Your task to perform on an android device: Is it going to rain this weekend? Image 0: 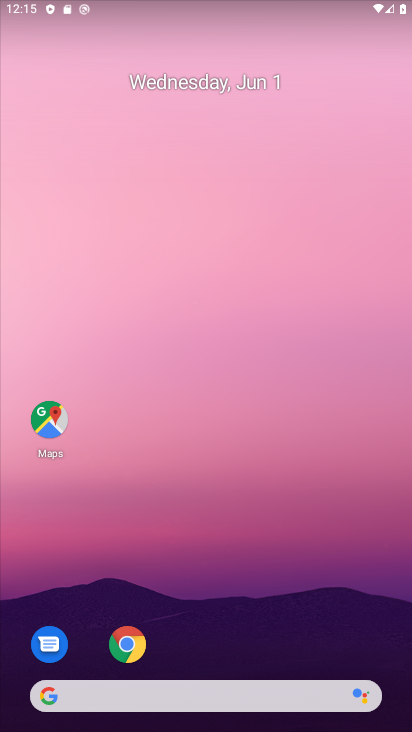
Step 0: click (141, 645)
Your task to perform on an android device: Is it going to rain this weekend? Image 1: 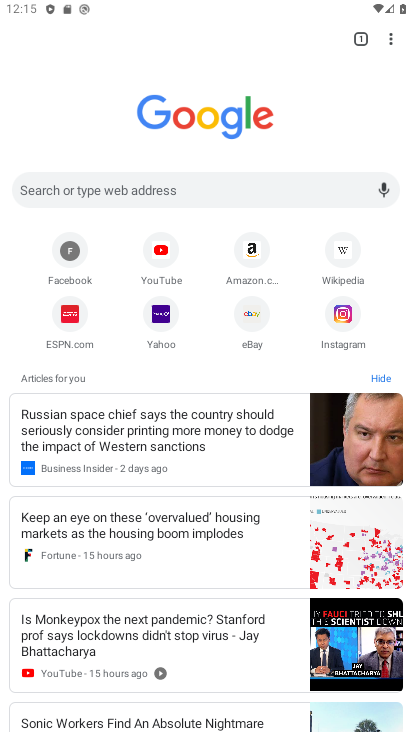
Step 1: click (220, 198)
Your task to perform on an android device: Is it going to rain this weekend? Image 2: 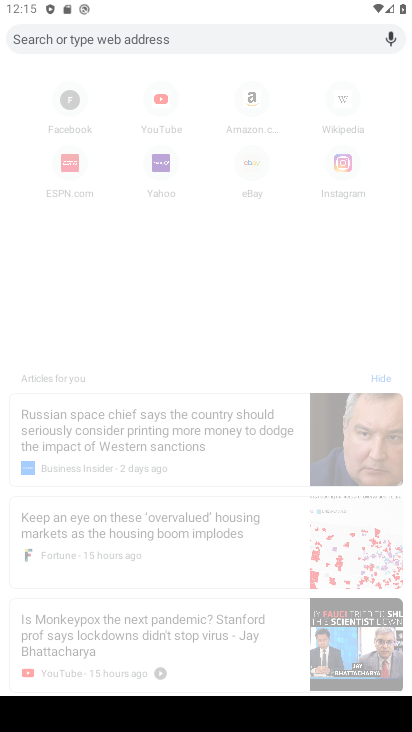
Step 2: type "Is it going to rain this weekend?"
Your task to perform on an android device: Is it going to rain this weekend? Image 3: 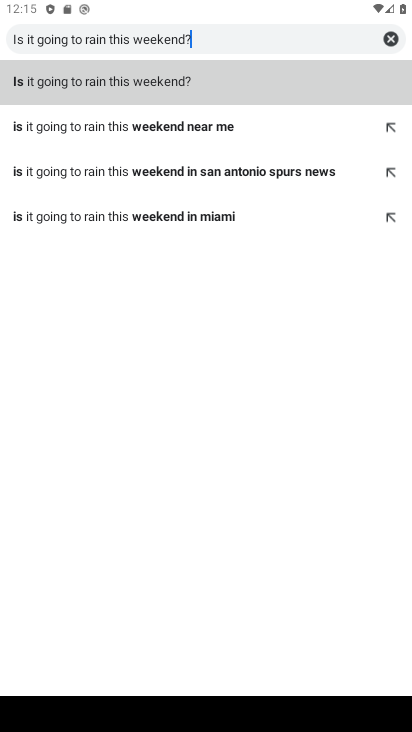
Step 3: type ""
Your task to perform on an android device: Is it going to rain this weekend? Image 4: 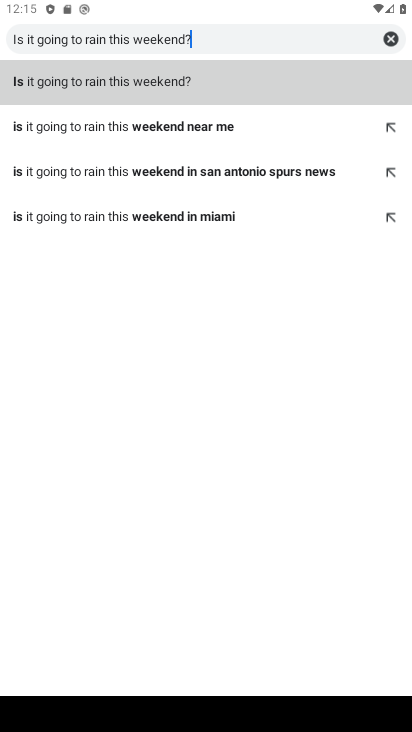
Step 4: click (226, 77)
Your task to perform on an android device: Is it going to rain this weekend? Image 5: 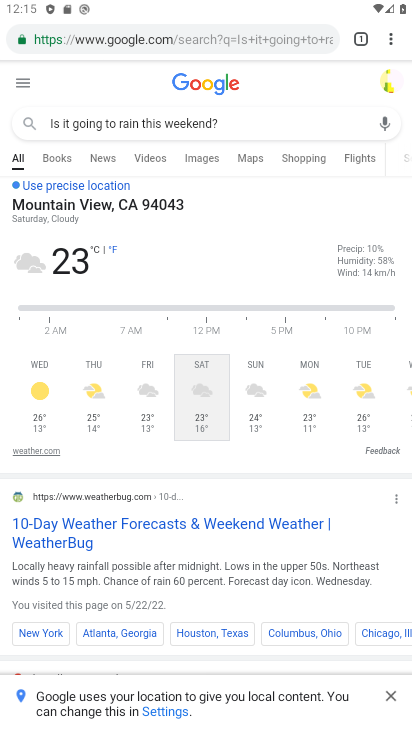
Step 5: task complete